Your task to perform on an android device: Do I have any events today? Image 0: 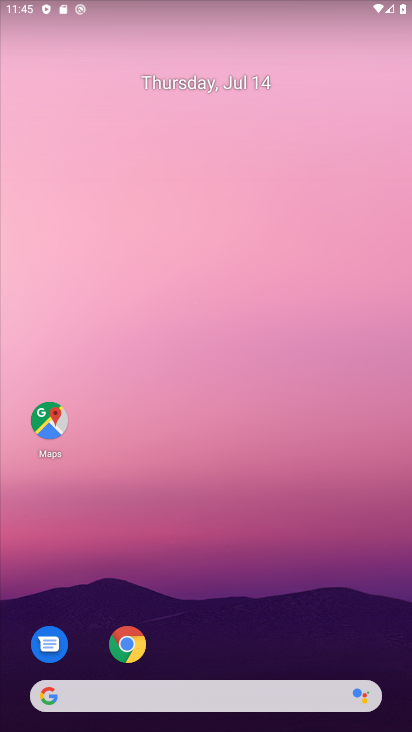
Step 0: drag from (378, 653) to (226, 61)
Your task to perform on an android device: Do I have any events today? Image 1: 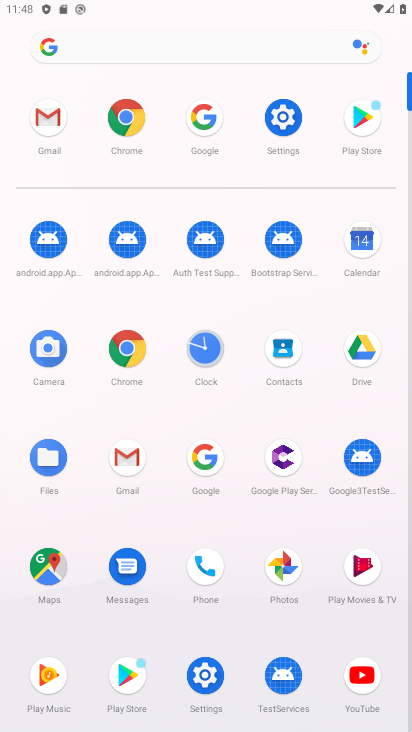
Step 1: click (377, 226)
Your task to perform on an android device: Do I have any events today? Image 2: 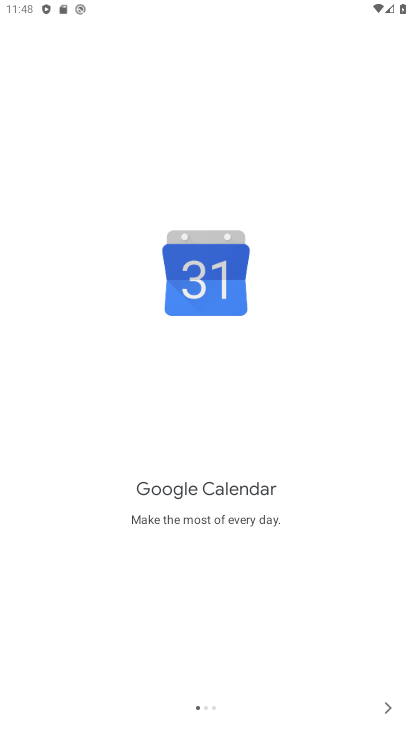
Step 2: click (380, 704)
Your task to perform on an android device: Do I have any events today? Image 3: 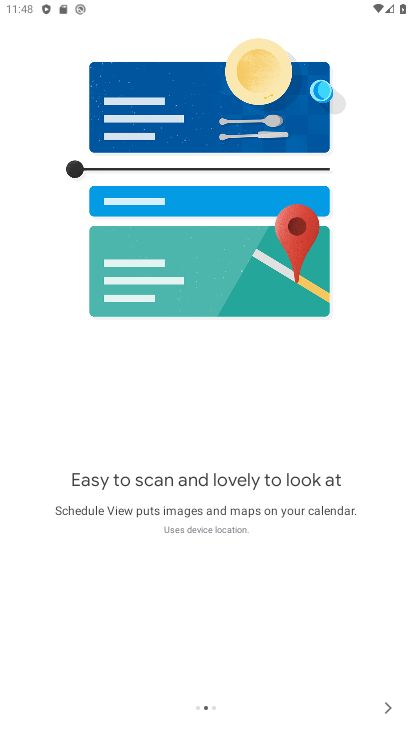
Step 3: click (380, 704)
Your task to perform on an android device: Do I have any events today? Image 4: 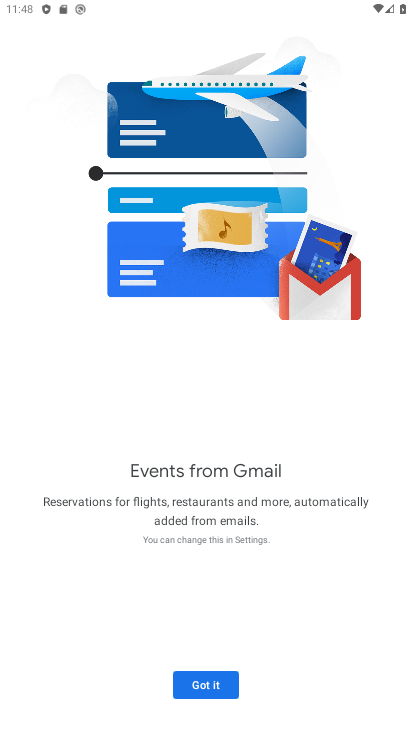
Step 4: click (208, 687)
Your task to perform on an android device: Do I have any events today? Image 5: 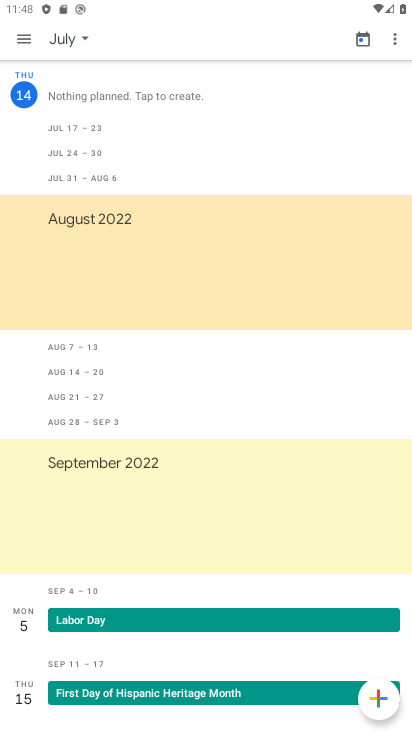
Step 5: task complete